Your task to perform on an android device: check storage Image 0: 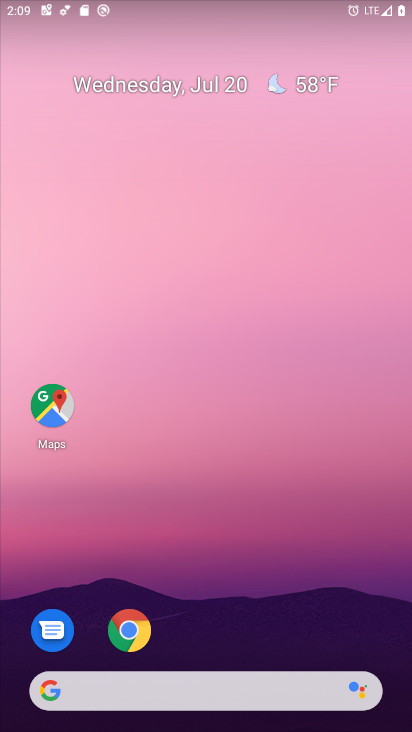
Step 0: drag from (230, 499) to (300, 23)
Your task to perform on an android device: check storage Image 1: 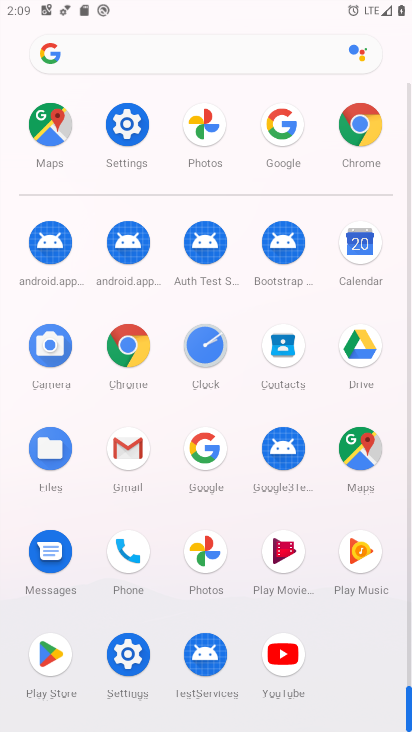
Step 1: click (130, 138)
Your task to perform on an android device: check storage Image 2: 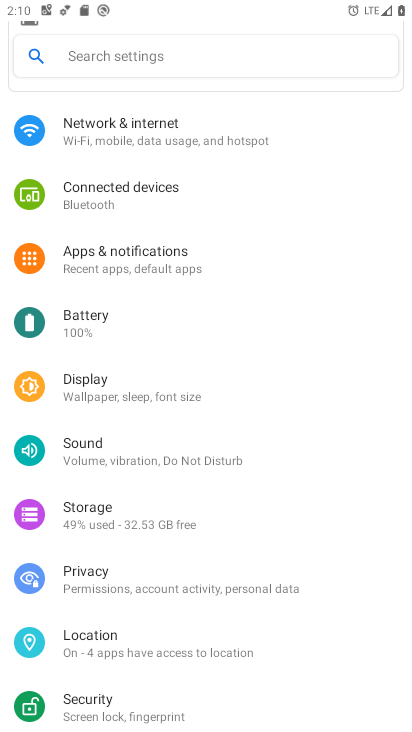
Step 2: click (108, 511)
Your task to perform on an android device: check storage Image 3: 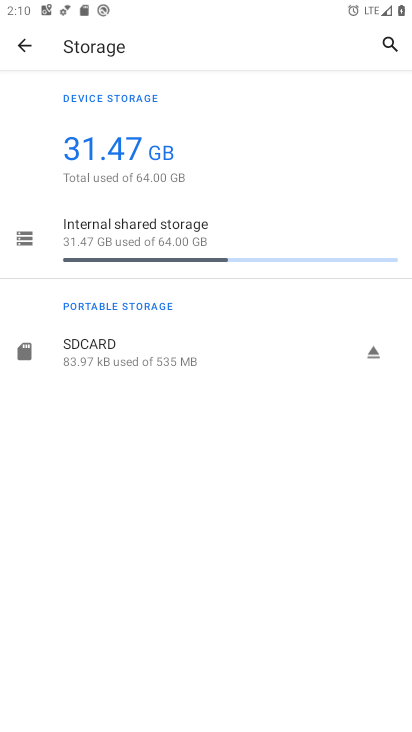
Step 3: click (199, 231)
Your task to perform on an android device: check storage Image 4: 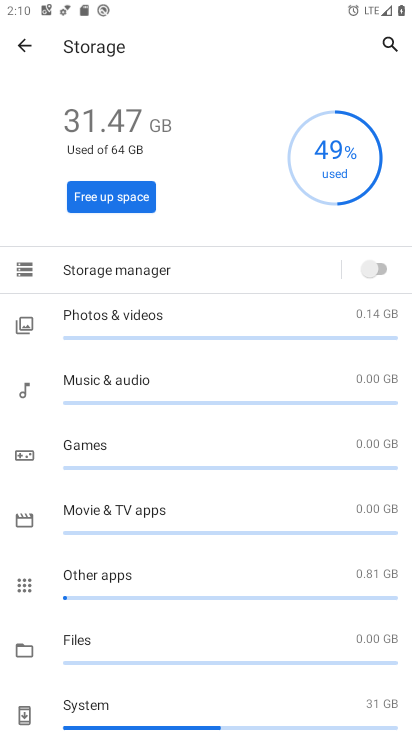
Step 4: task complete